Your task to perform on an android device: Open calendar and show me the third week of next month Image 0: 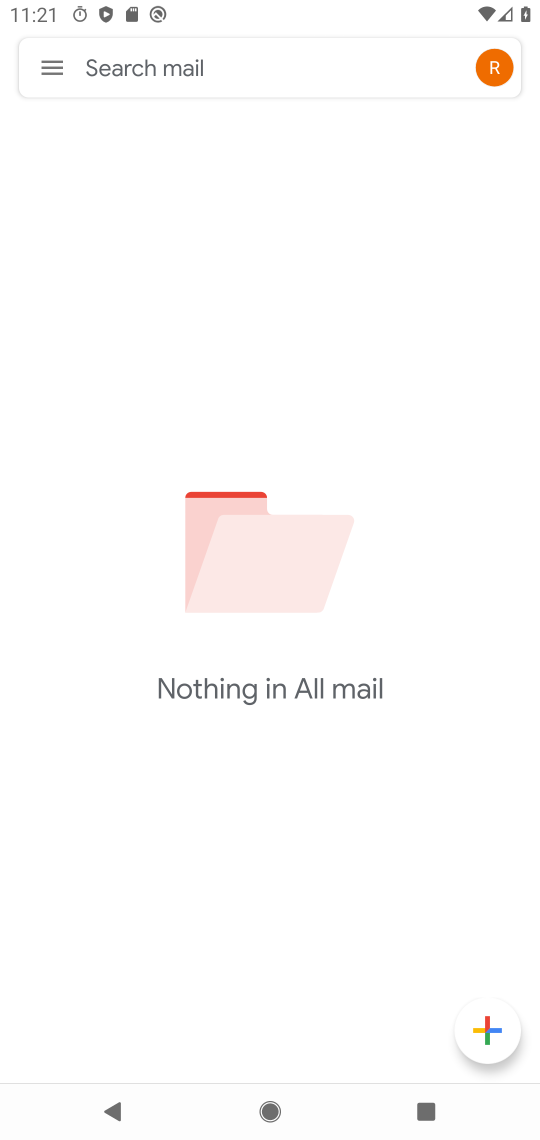
Step 0: press home button
Your task to perform on an android device: Open calendar and show me the third week of next month Image 1: 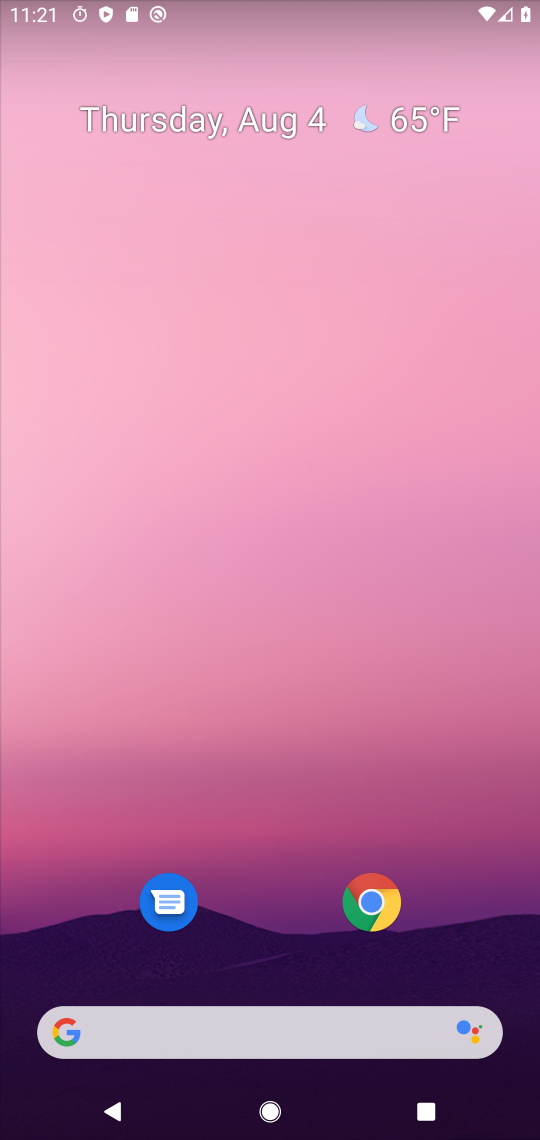
Step 1: drag from (300, 1063) to (256, 267)
Your task to perform on an android device: Open calendar and show me the third week of next month Image 2: 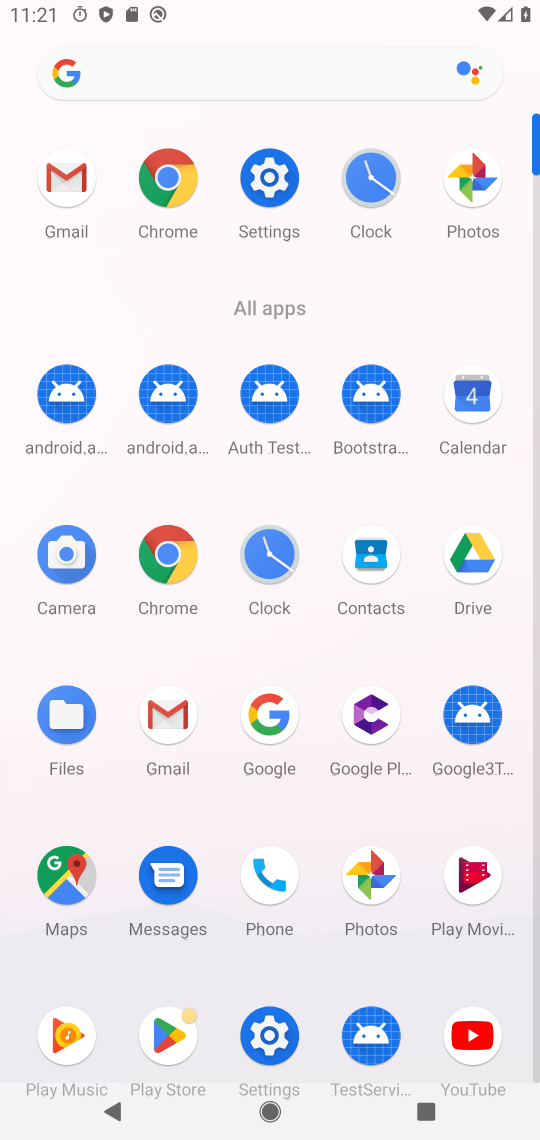
Step 2: click (480, 419)
Your task to perform on an android device: Open calendar and show me the third week of next month Image 3: 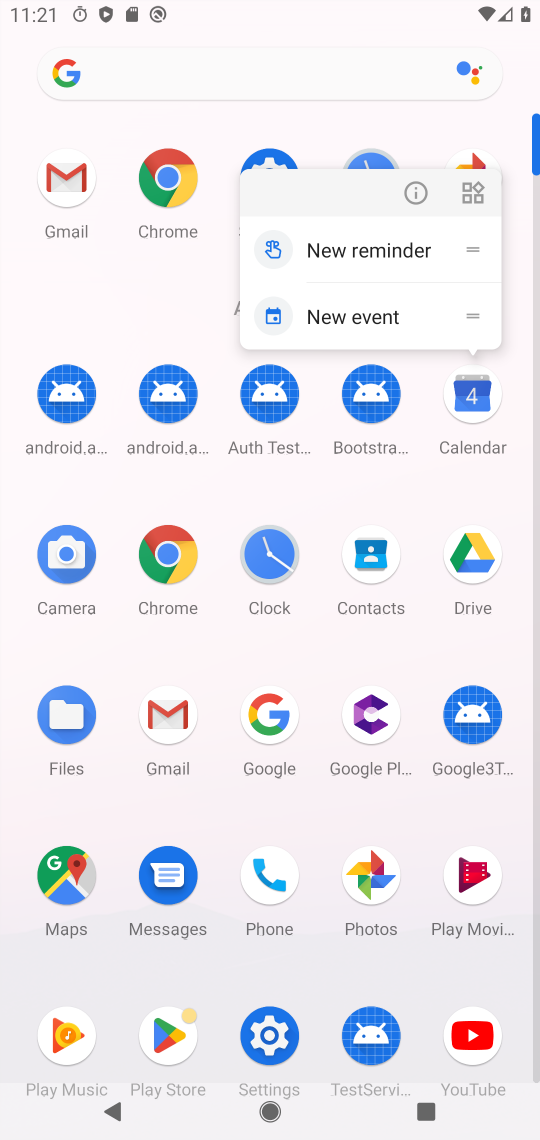
Step 3: click (467, 403)
Your task to perform on an android device: Open calendar and show me the third week of next month Image 4: 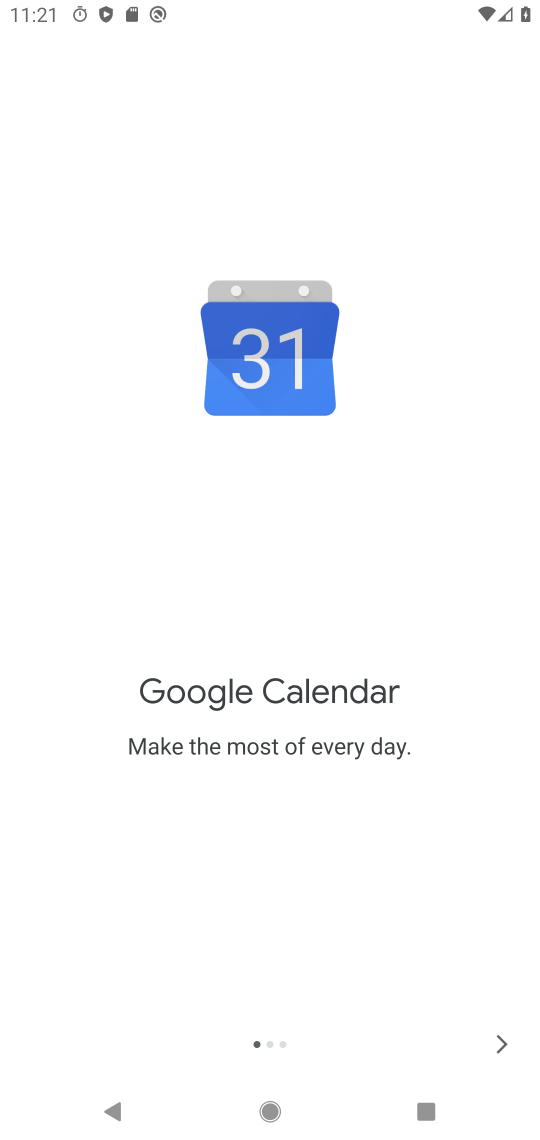
Step 4: click (491, 1053)
Your task to perform on an android device: Open calendar and show me the third week of next month Image 5: 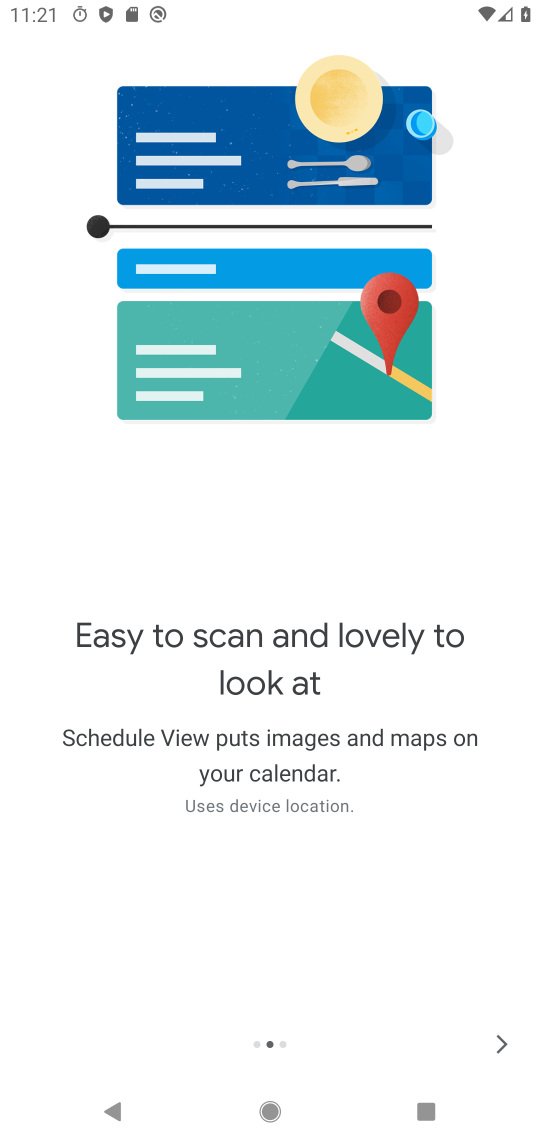
Step 5: click (495, 1037)
Your task to perform on an android device: Open calendar and show me the third week of next month Image 6: 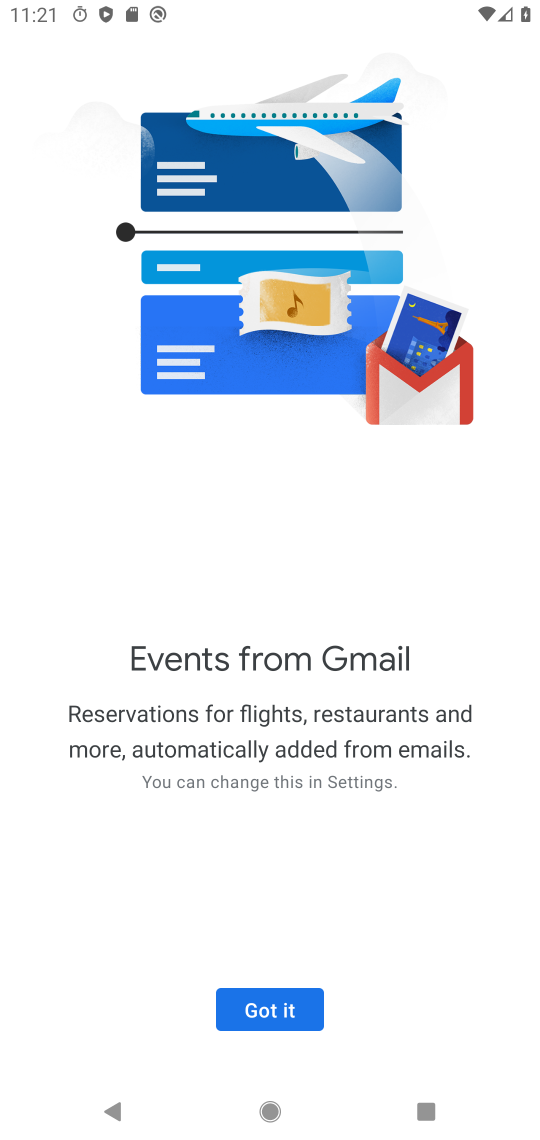
Step 6: click (496, 1043)
Your task to perform on an android device: Open calendar and show me the third week of next month Image 7: 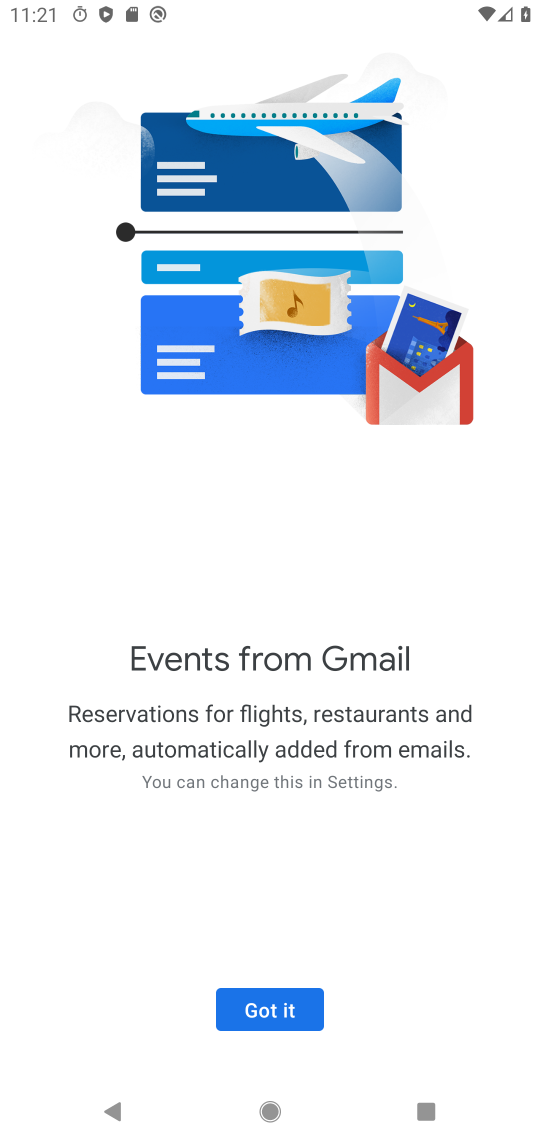
Step 7: click (271, 1006)
Your task to perform on an android device: Open calendar and show me the third week of next month Image 8: 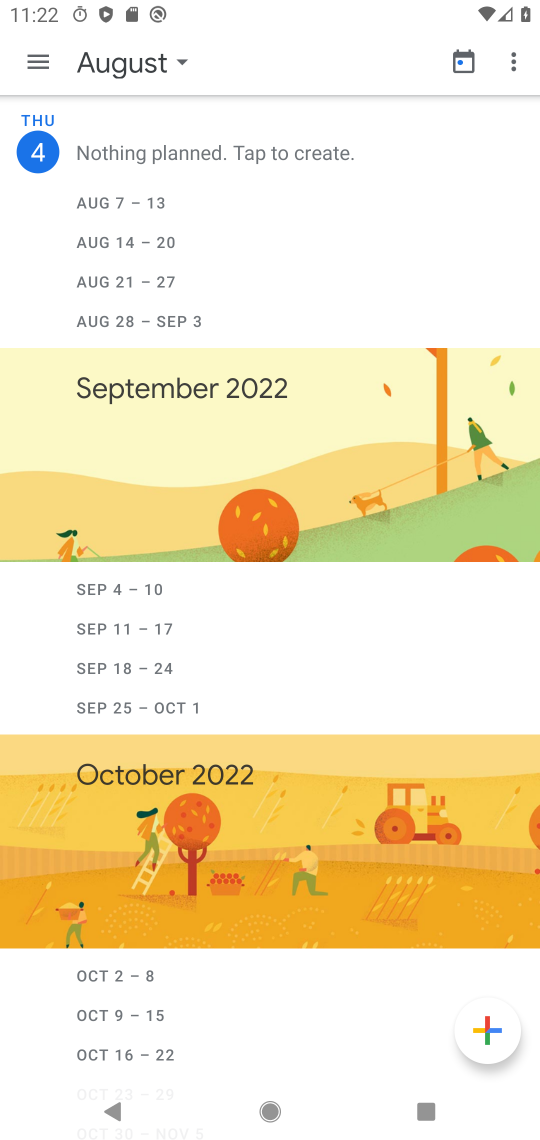
Step 8: click (19, 76)
Your task to perform on an android device: Open calendar and show me the third week of next month Image 9: 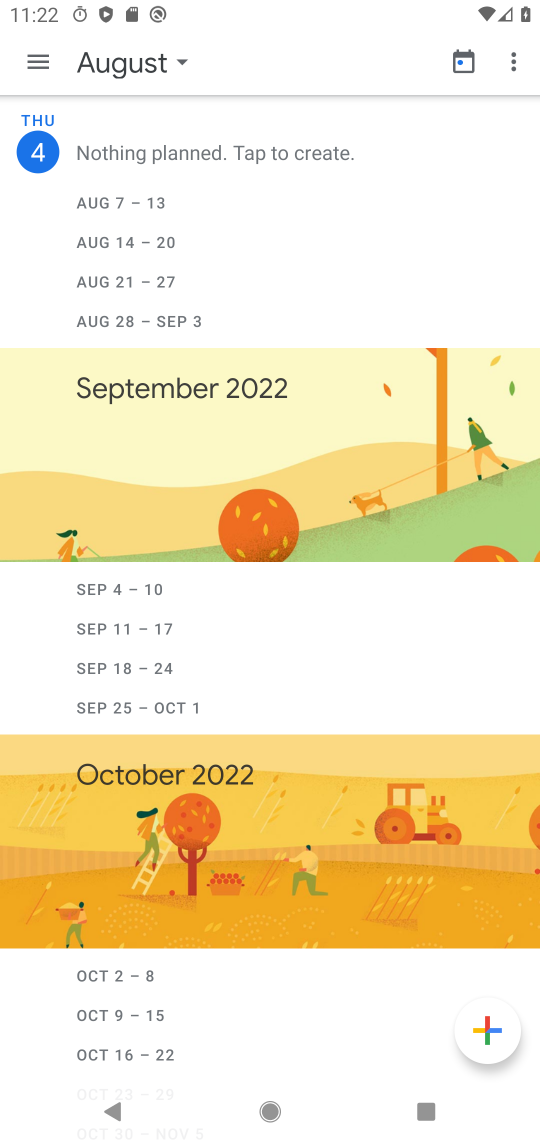
Step 9: click (40, 55)
Your task to perform on an android device: Open calendar and show me the third week of next month Image 10: 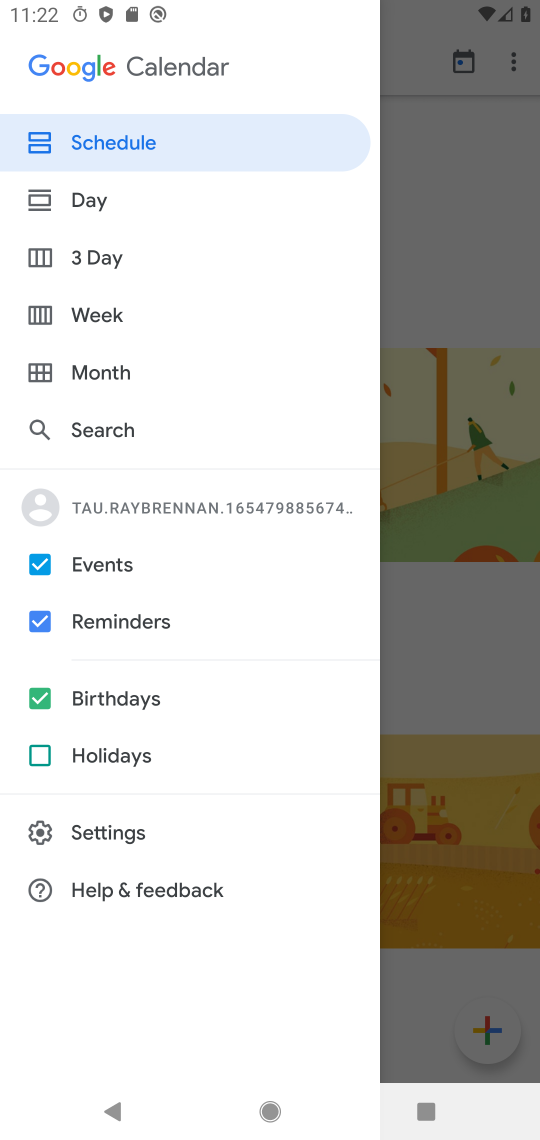
Step 10: click (118, 375)
Your task to perform on an android device: Open calendar and show me the third week of next month Image 11: 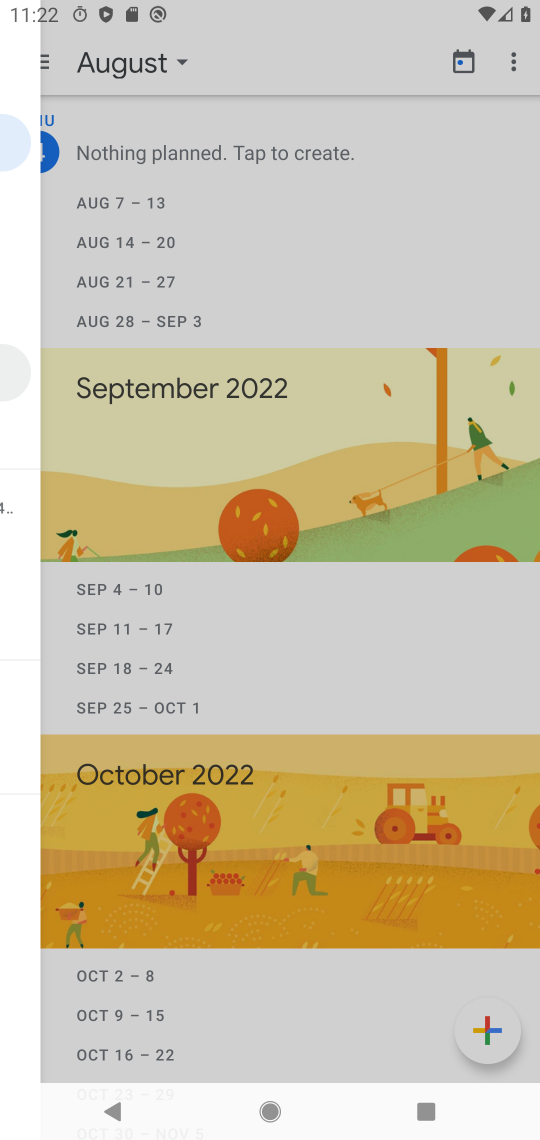
Step 11: click (128, 368)
Your task to perform on an android device: Open calendar and show me the third week of next month Image 12: 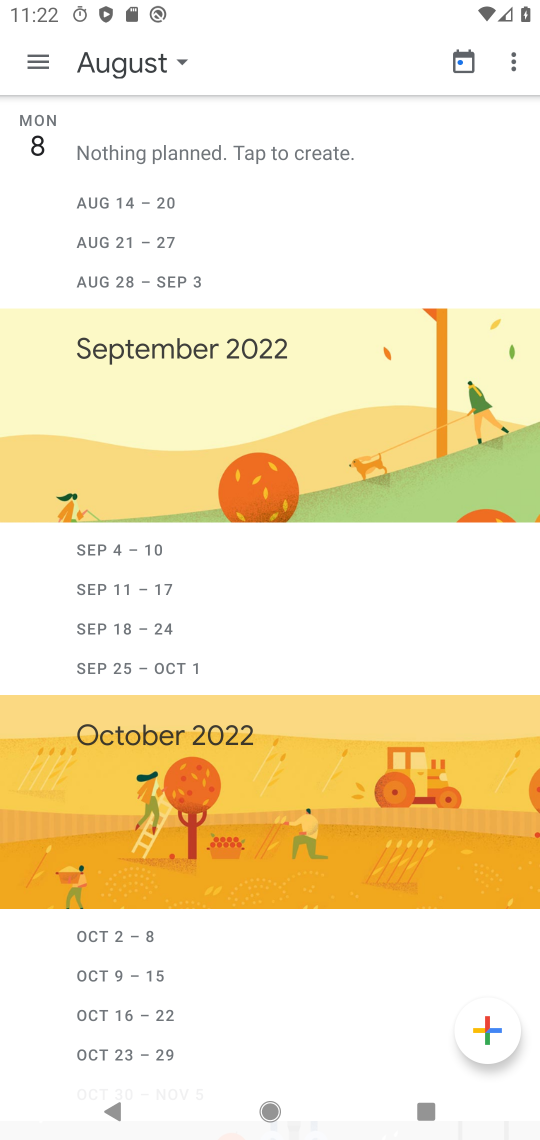
Step 12: click (35, 71)
Your task to perform on an android device: Open calendar and show me the third week of next month Image 13: 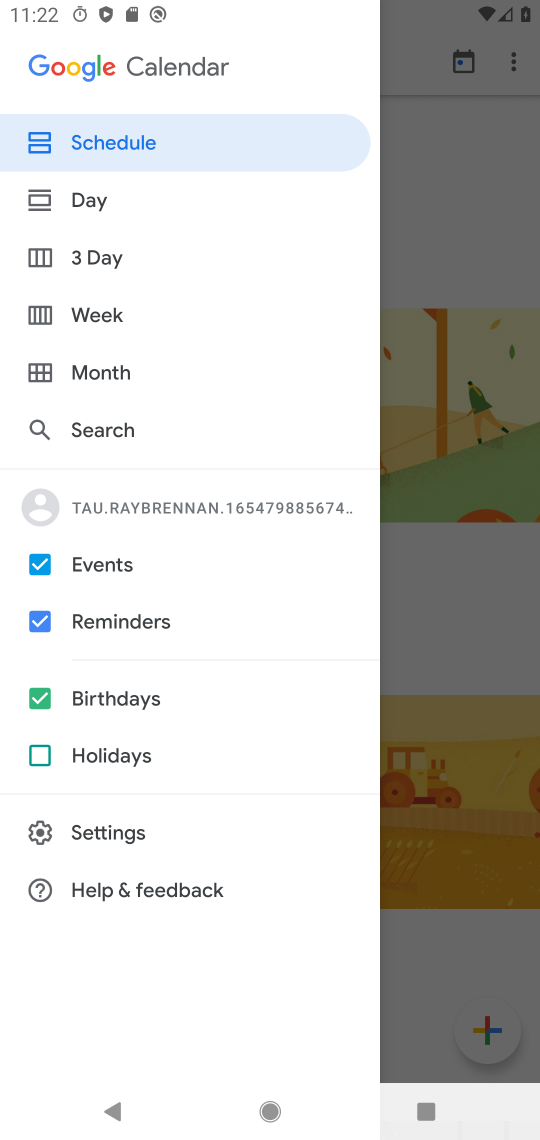
Step 13: click (41, 66)
Your task to perform on an android device: Open calendar and show me the third week of next month Image 14: 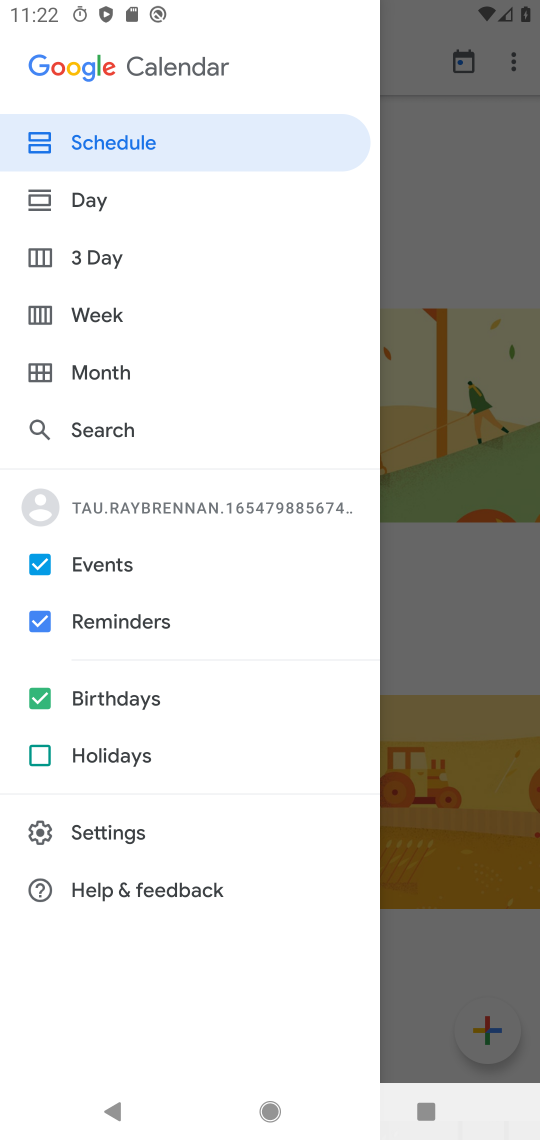
Step 14: click (111, 371)
Your task to perform on an android device: Open calendar and show me the third week of next month Image 15: 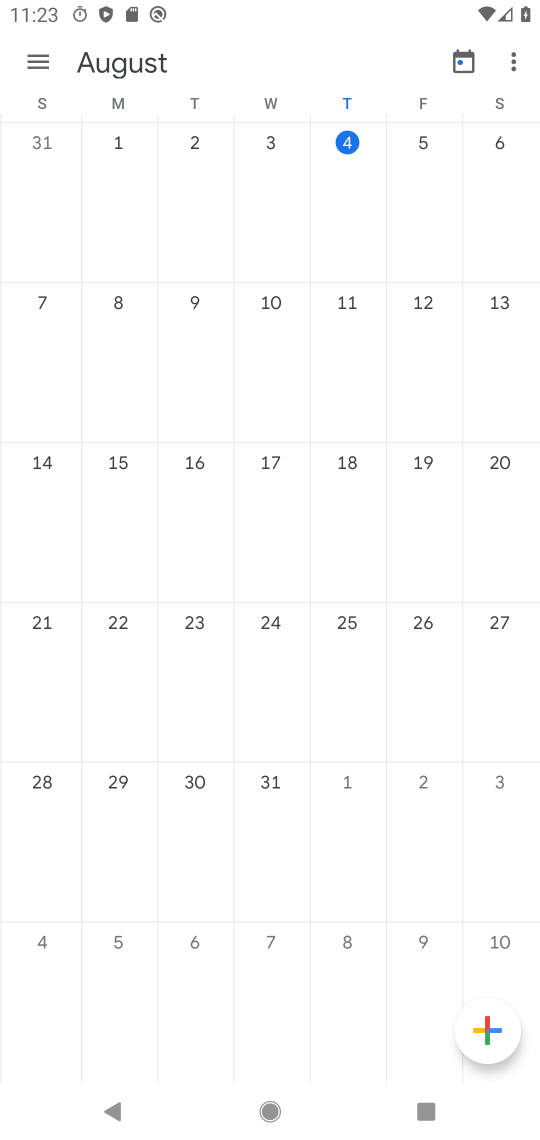
Step 15: drag from (460, 540) to (3, 471)
Your task to perform on an android device: Open calendar and show me the third week of next month Image 16: 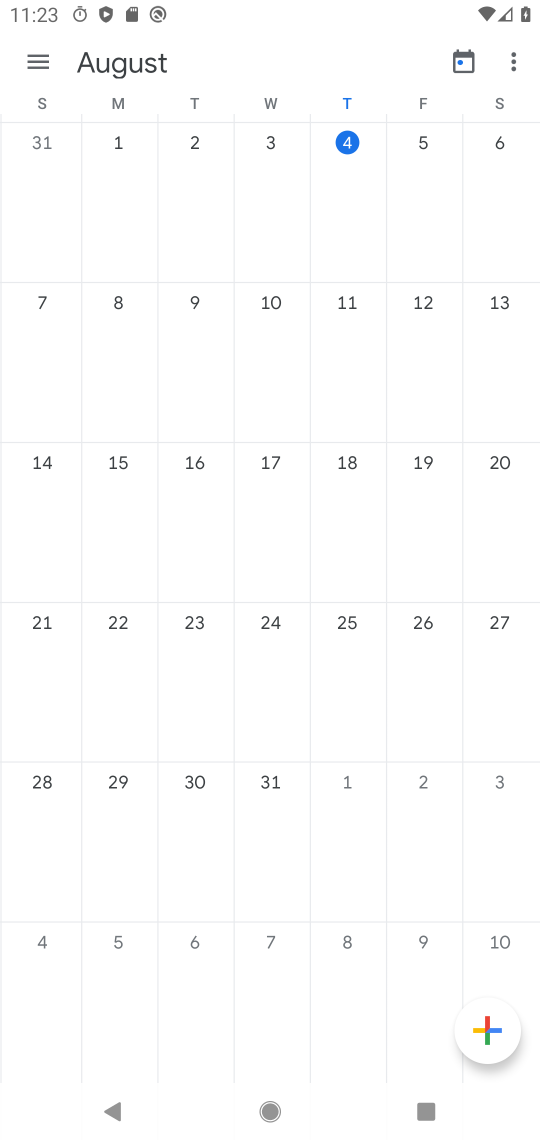
Step 16: drag from (449, 453) to (27, 381)
Your task to perform on an android device: Open calendar and show me the third week of next month Image 17: 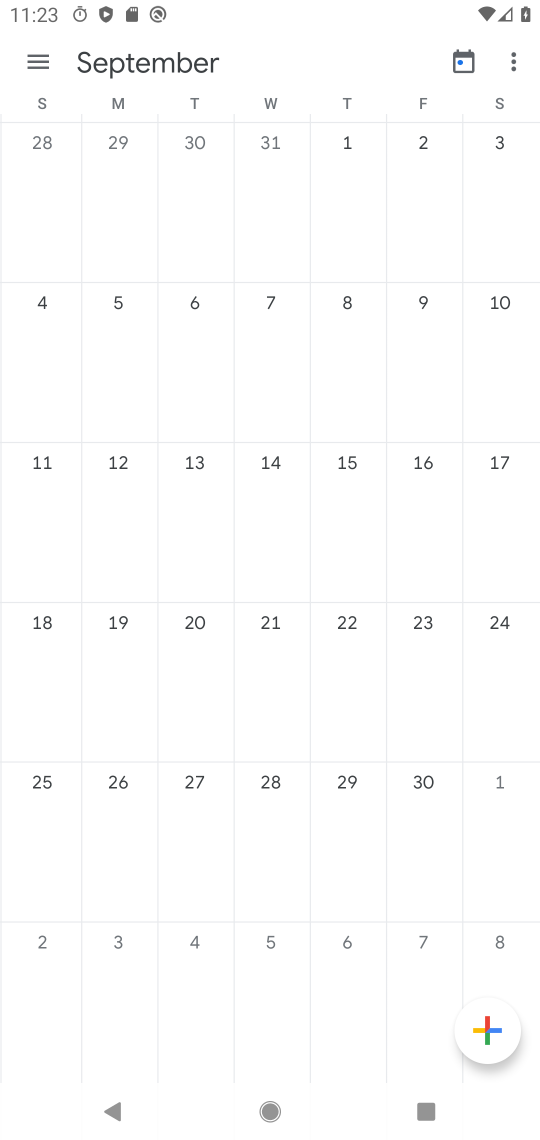
Step 17: click (129, 644)
Your task to perform on an android device: Open calendar and show me the third week of next month Image 18: 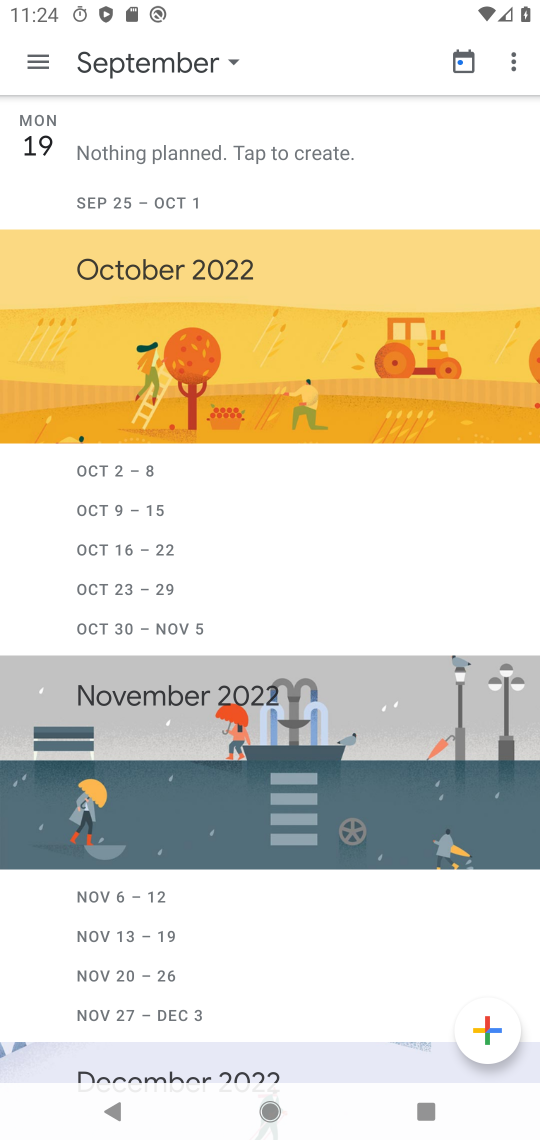
Step 18: task complete